Your task to perform on an android device: Go to Amazon Image 0: 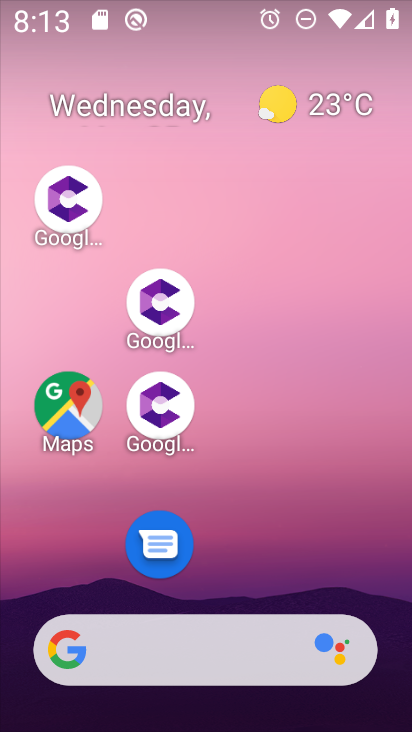
Step 0: drag from (253, 549) to (166, 58)
Your task to perform on an android device: Go to Amazon Image 1: 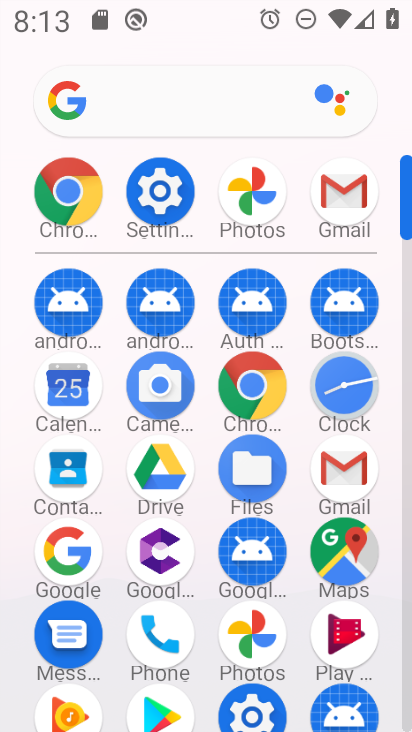
Step 1: click (250, 393)
Your task to perform on an android device: Go to Amazon Image 2: 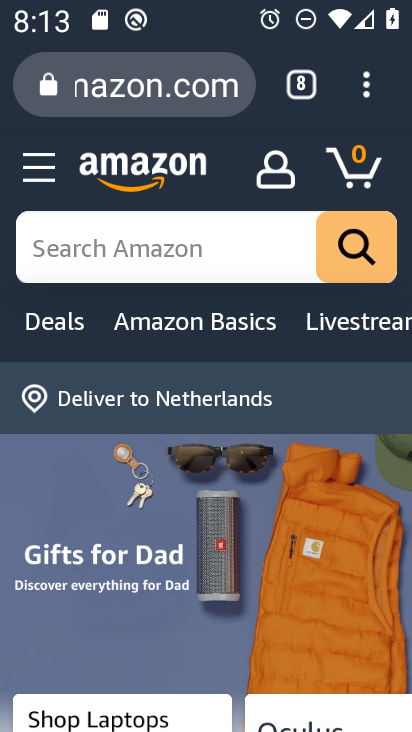
Step 2: task complete